Your task to perform on an android device: check data usage Image 0: 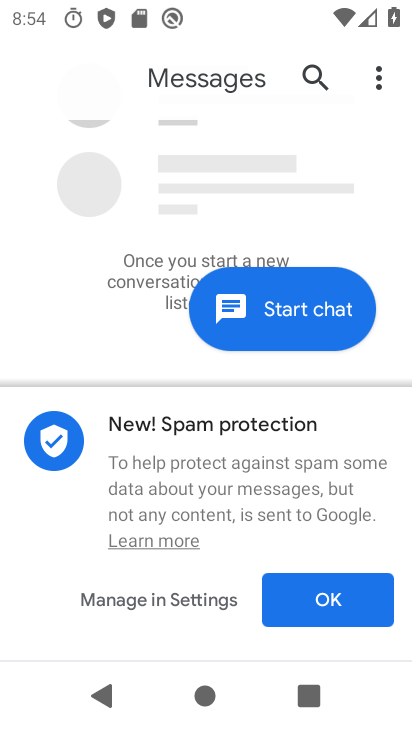
Step 0: press home button
Your task to perform on an android device: check data usage Image 1: 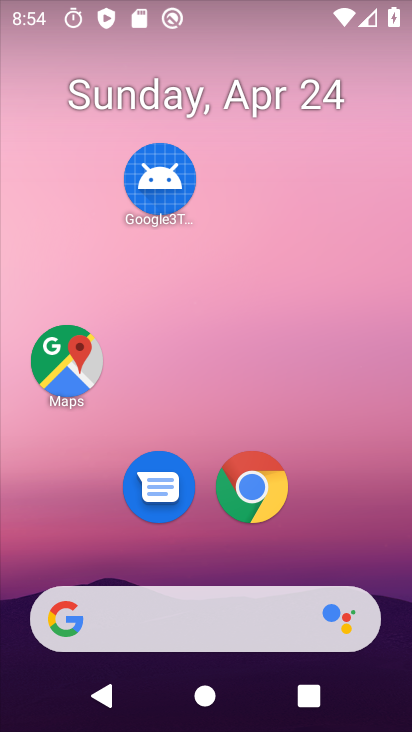
Step 1: drag from (311, 504) to (327, 165)
Your task to perform on an android device: check data usage Image 2: 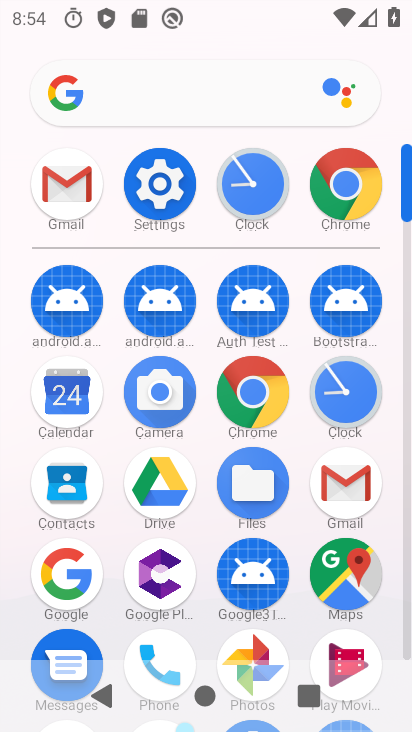
Step 2: click (169, 189)
Your task to perform on an android device: check data usage Image 3: 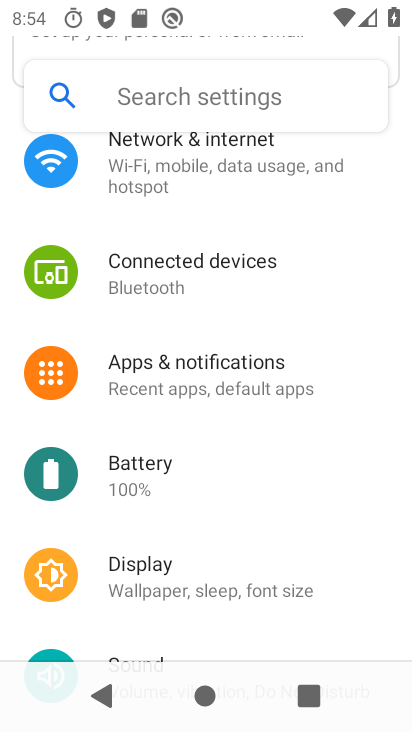
Step 3: click (170, 189)
Your task to perform on an android device: check data usage Image 4: 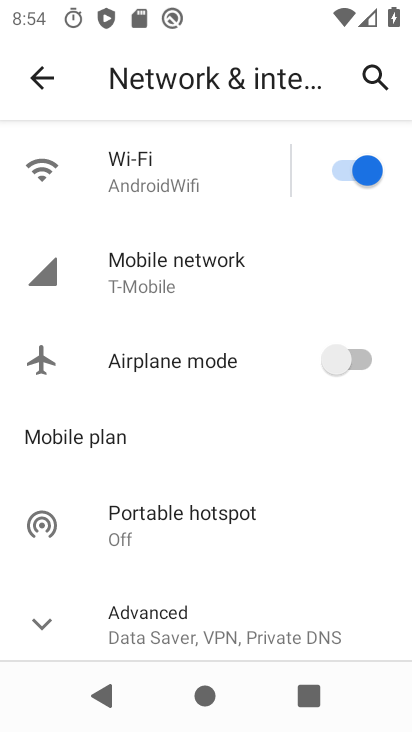
Step 4: click (164, 177)
Your task to perform on an android device: check data usage Image 5: 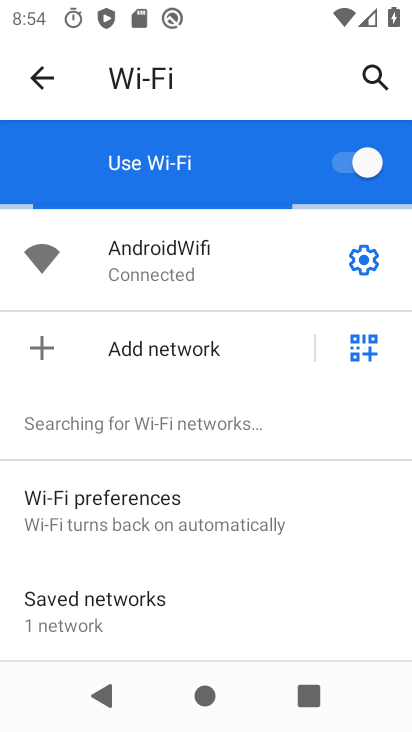
Step 5: drag from (163, 602) to (156, 223)
Your task to perform on an android device: check data usage Image 6: 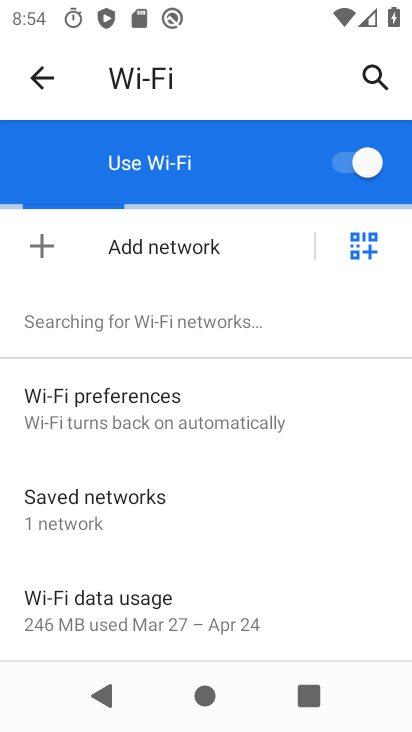
Step 6: click (81, 615)
Your task to perform on an android device: check data usage Image 7: 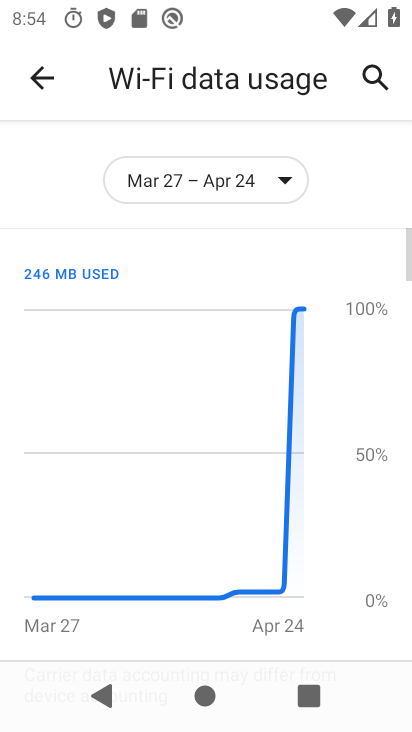
Step 7: drag from (242, 594) to (240, 271)
Your task to perform on an android device: check data usage Image 8: 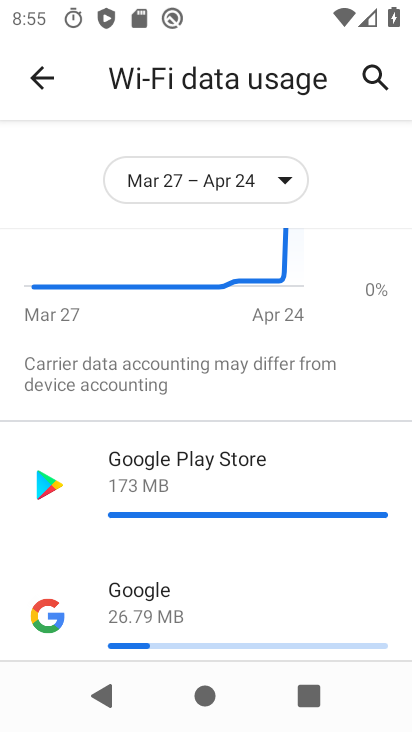
Step 8: click (46, 76)
Your task to perform on an android device: check data usage Image 9: 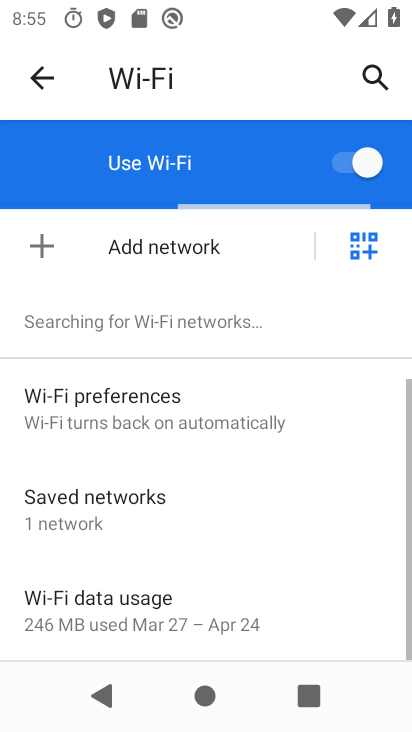
Step 9: click (46, 76)
Your task to perform on an android device: check data usage Image 10: 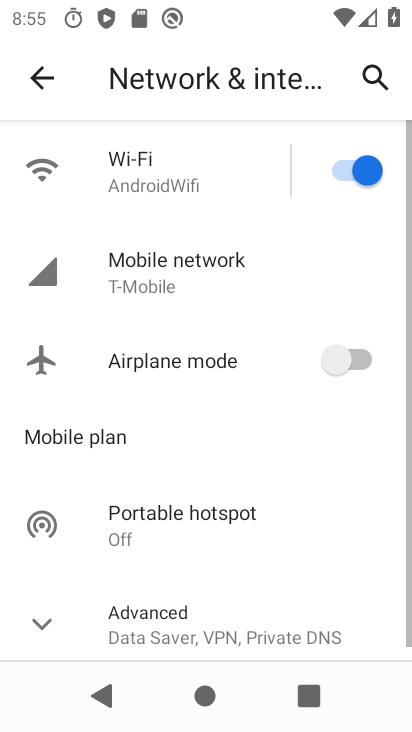
Step 10: click (142, 287)
Your task to perform on an android device: check data usage Image 11: 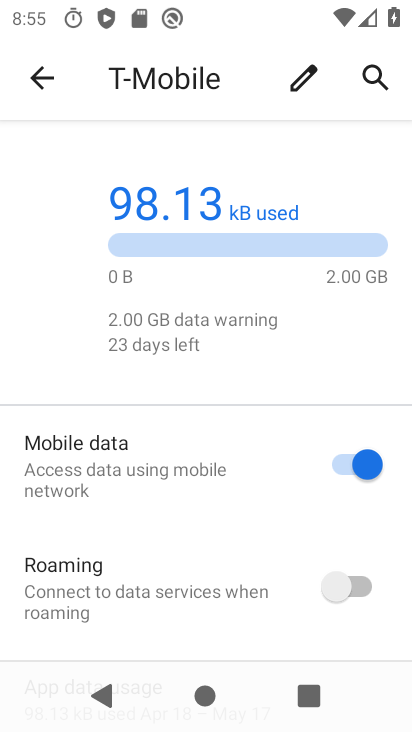
Step 11: task complete